Your task to perform on an android device: What's on my calendar tomorrow? Image 0: 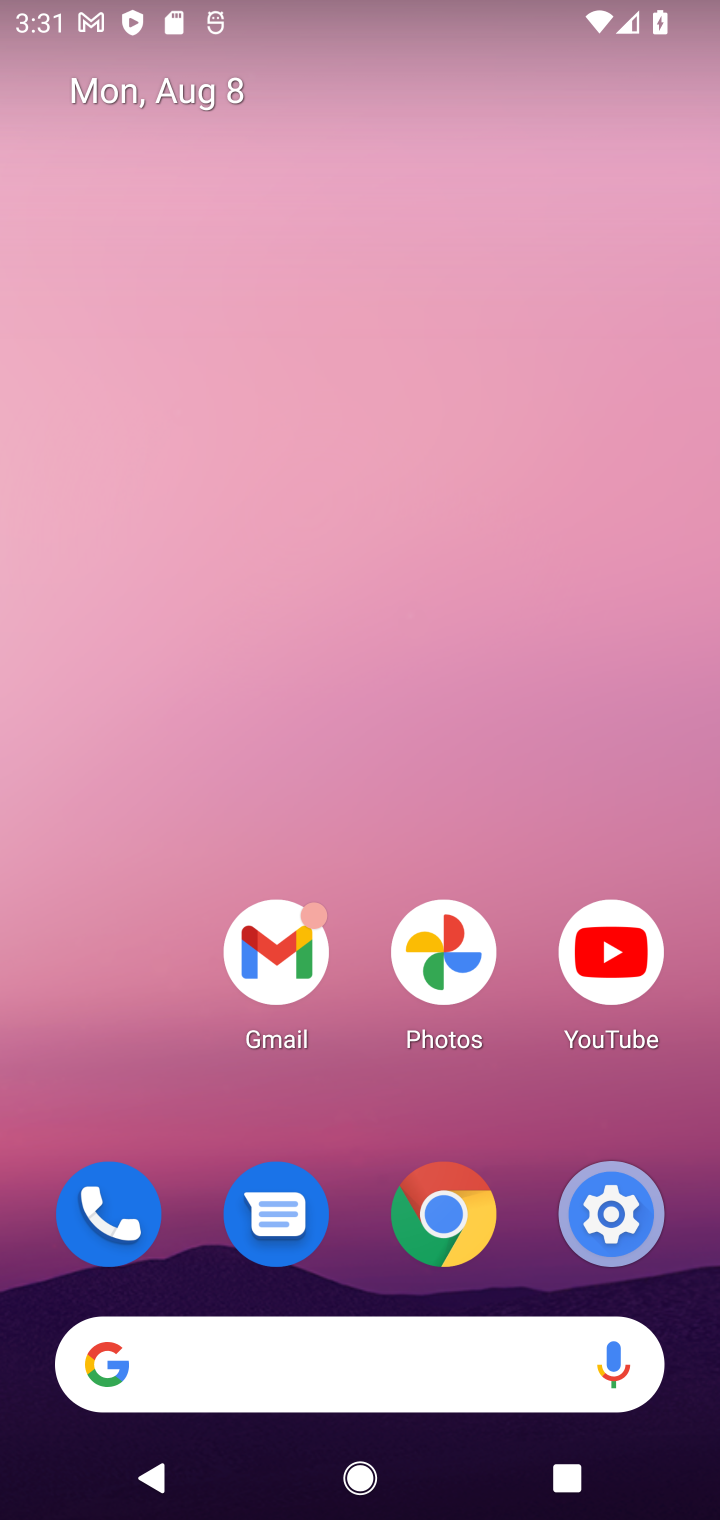
Step 0: press home button
Your task to perform on an android device: What's on my calendar tomorrow? Image 1: 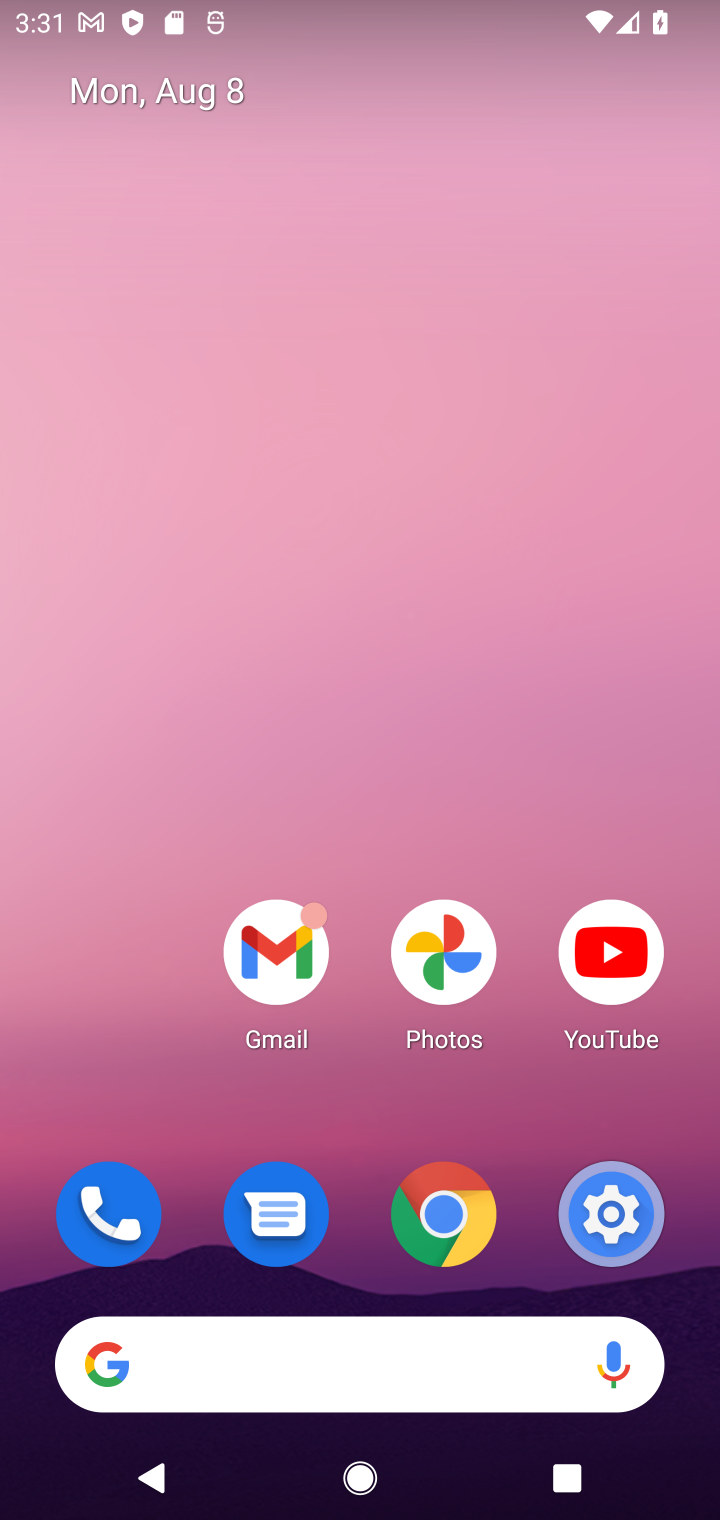
Step 1: click (317, 472)
Your task to perform on an android device: What's on my calendar tomorrow? Image 2: 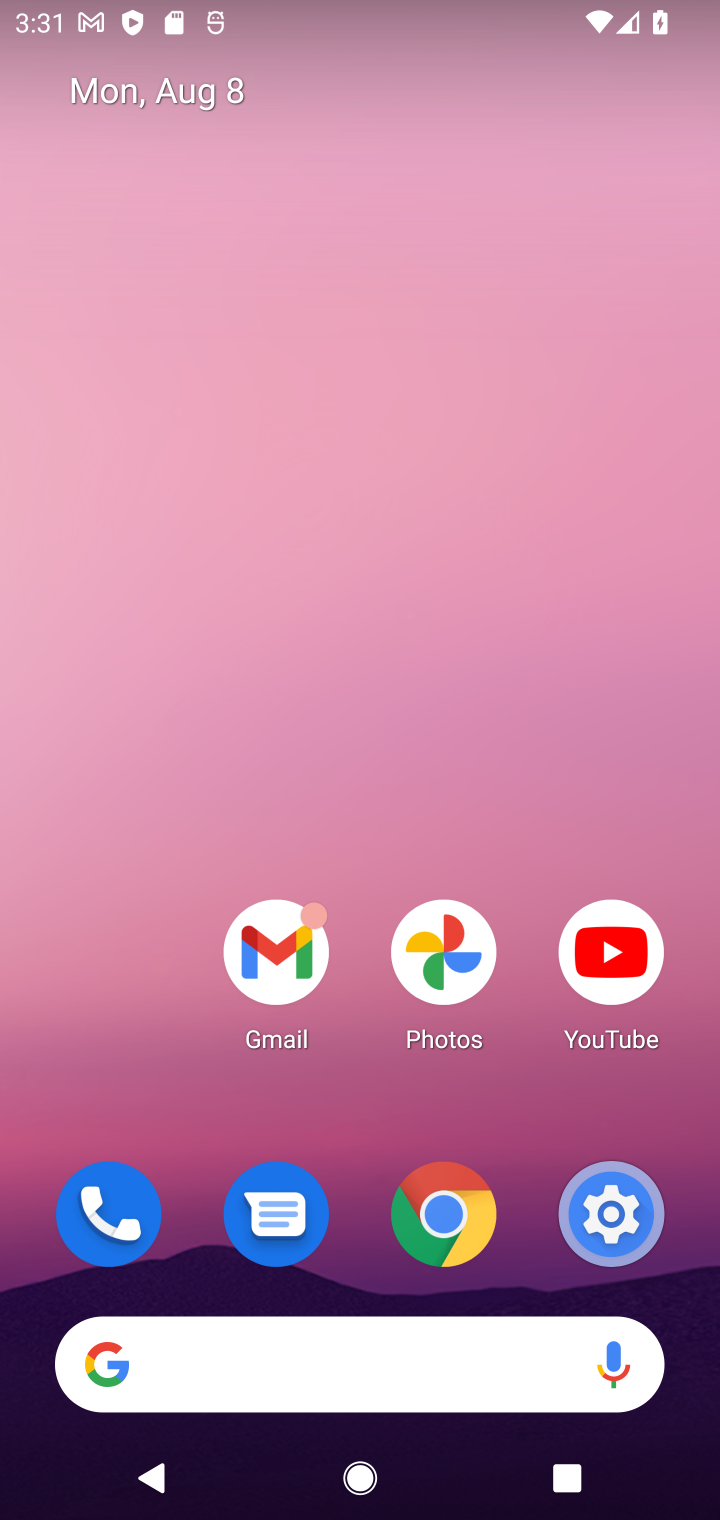
Step 2: drag from (367, 1165) to (356, 16)
Your task to perform on an android device: What's on my calendar tomorrow? Image 3: 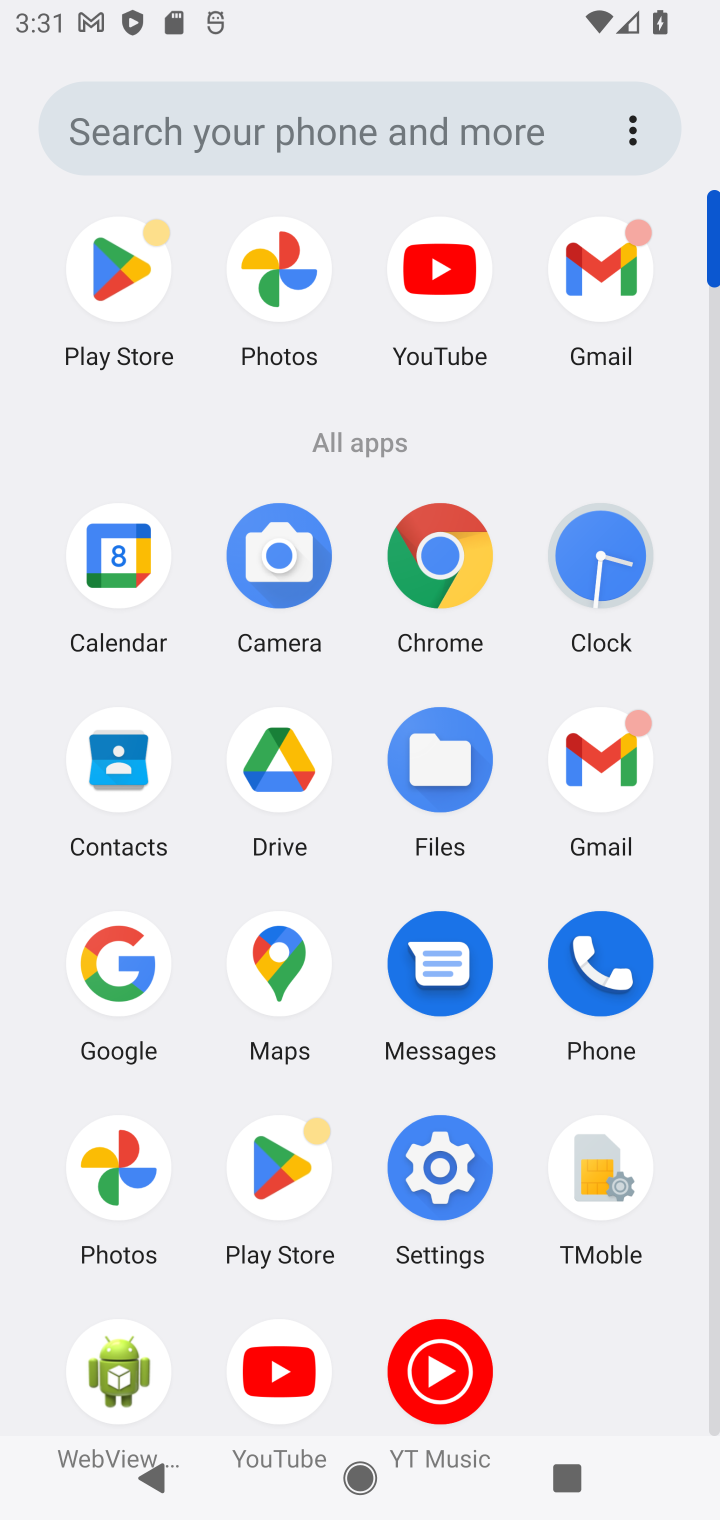
Step 3: click (114, 564)
Your task to perform on an android device: What's on my calendar tomorrow? Image 4: 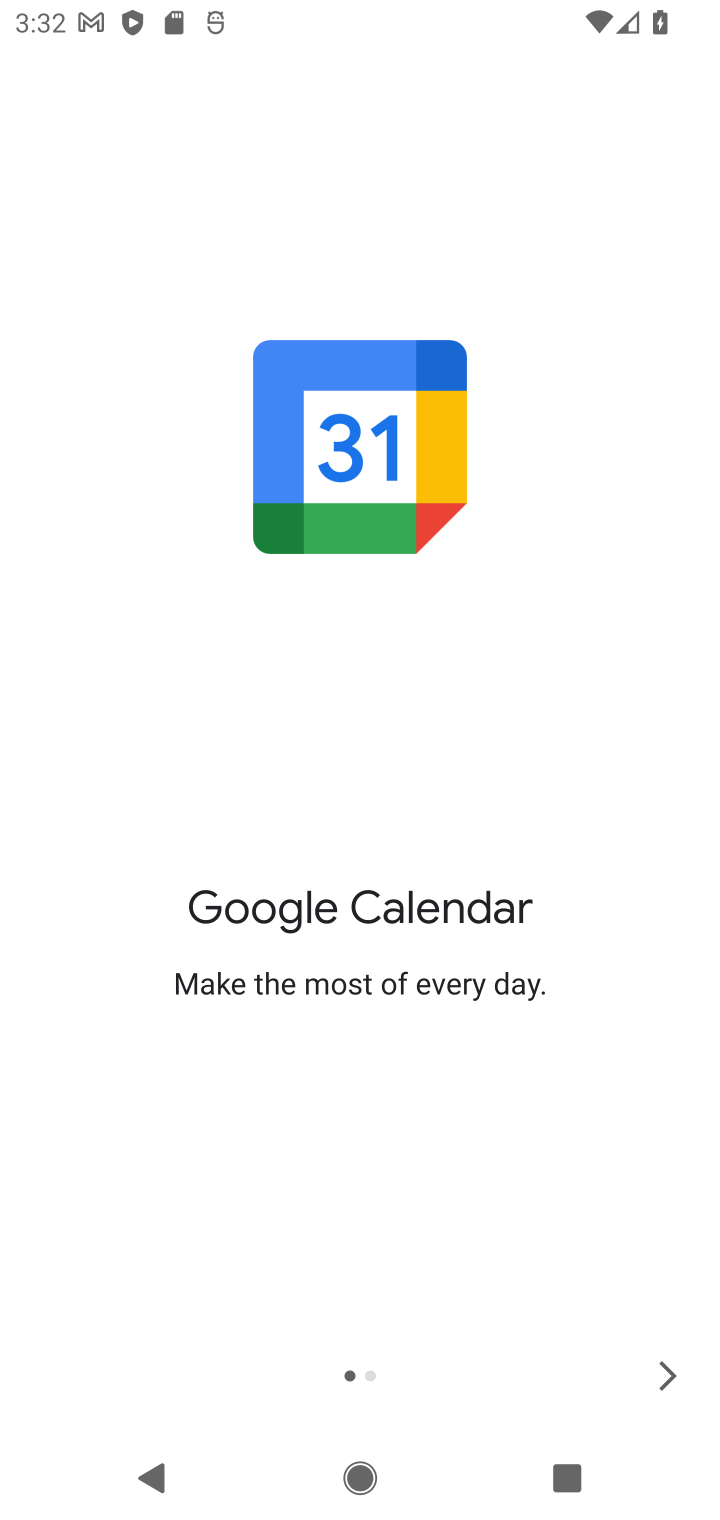
Step 4: click (671, 1358)
Your task to perform on an android device: What's on my calendar tomorrow? Image 5: 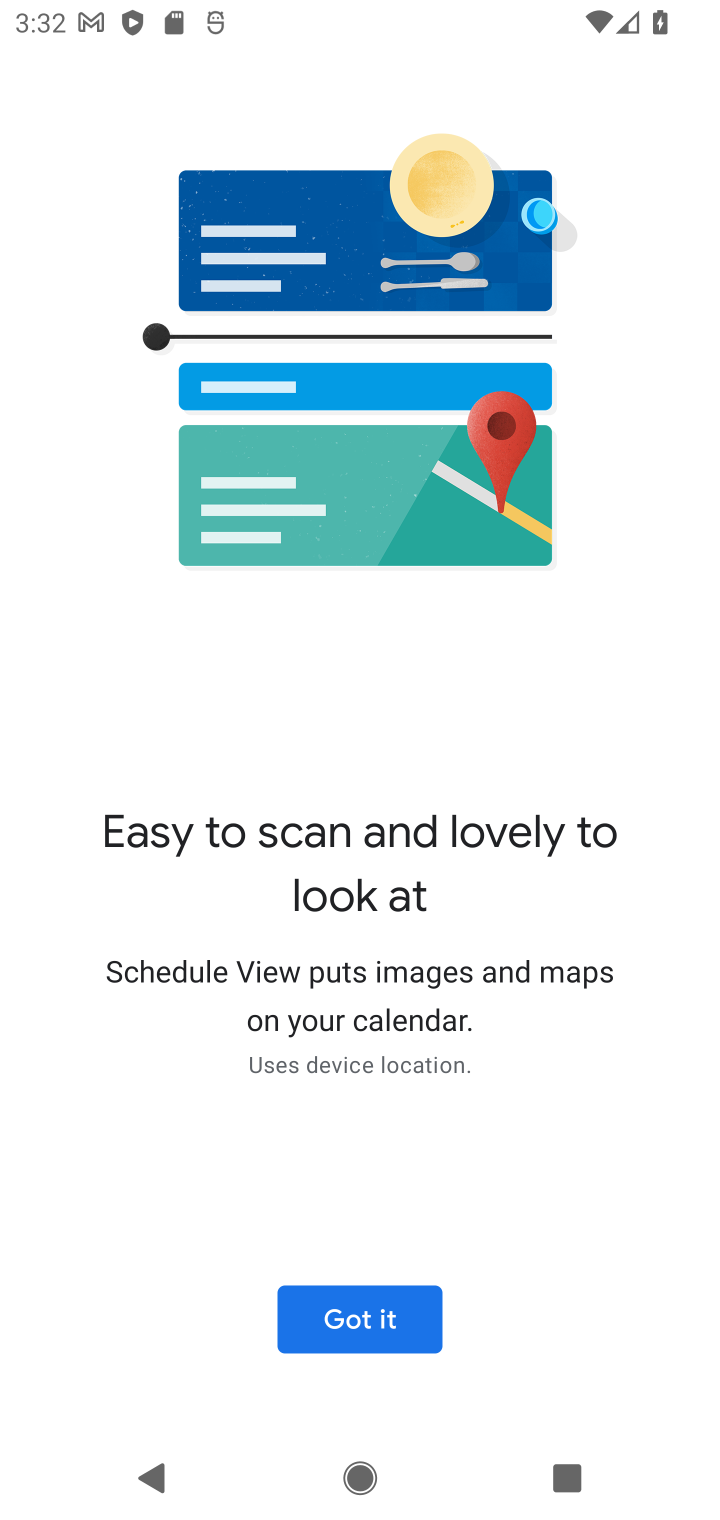
Step 5: click (379, 1315)
Your task to perform on an android device: What's on my calendar tomorrow? Image 6: 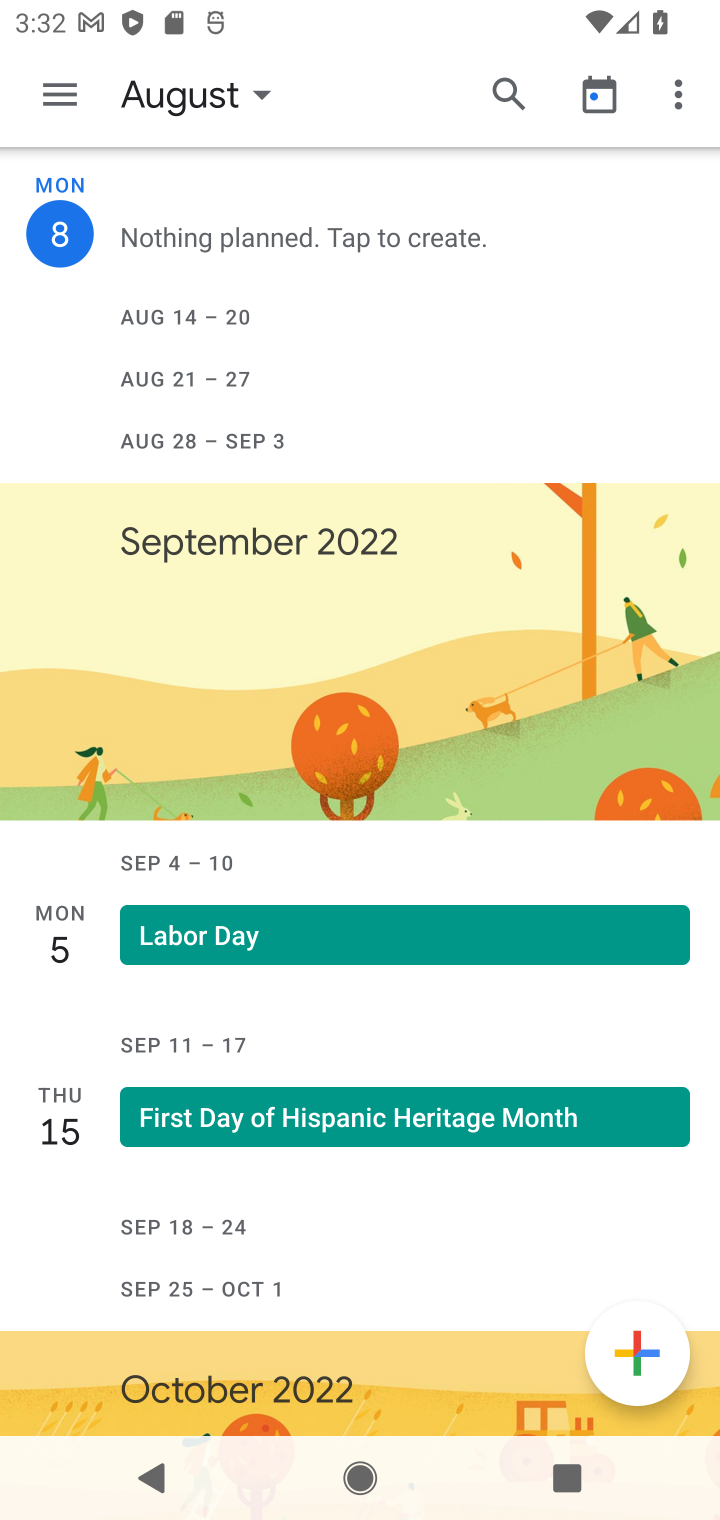
Step 6: click (232, 89)
Your task to perform on an android device: What's on my calendar tomorrow? Image 7: 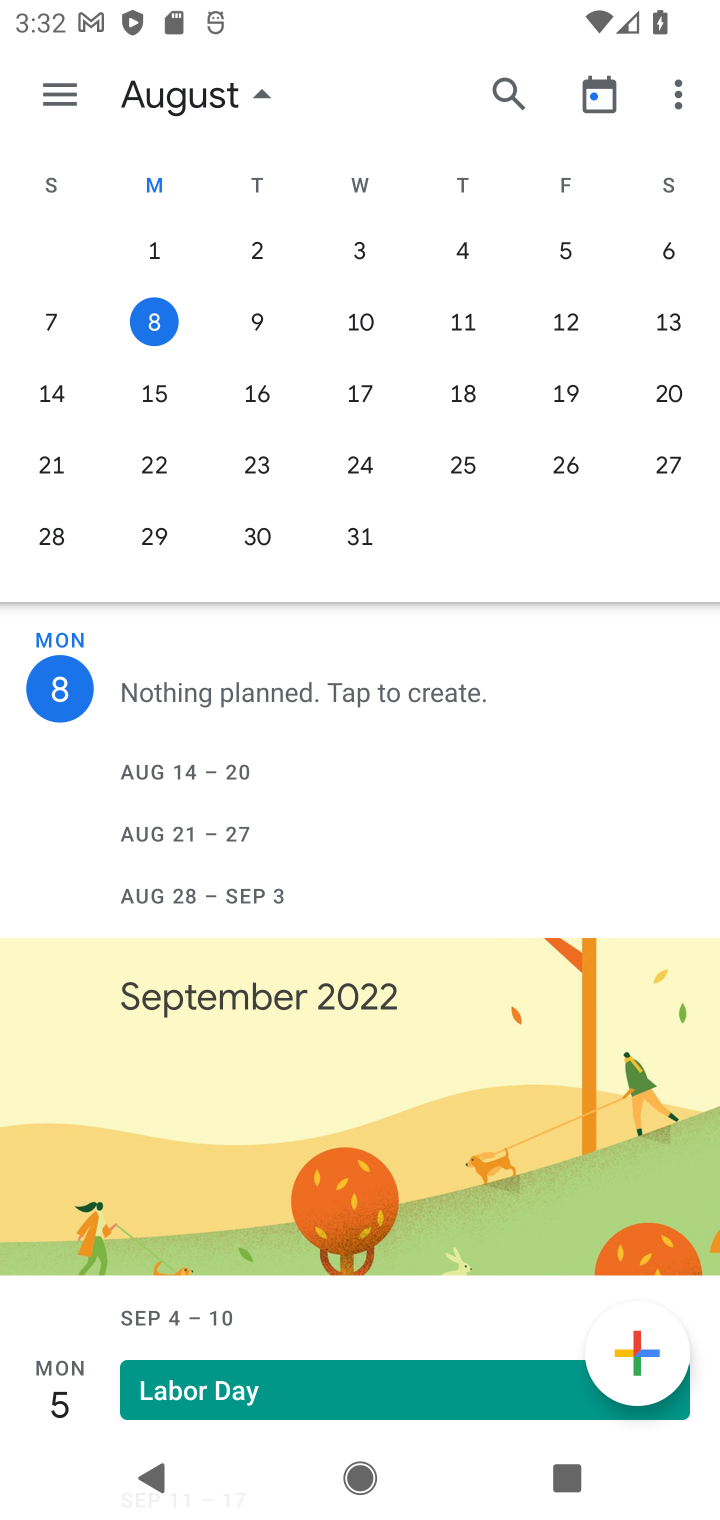
Step 7: click (159, 314)
Your task to perform on an android device: What's on my calendar tomorrow? Image 8: 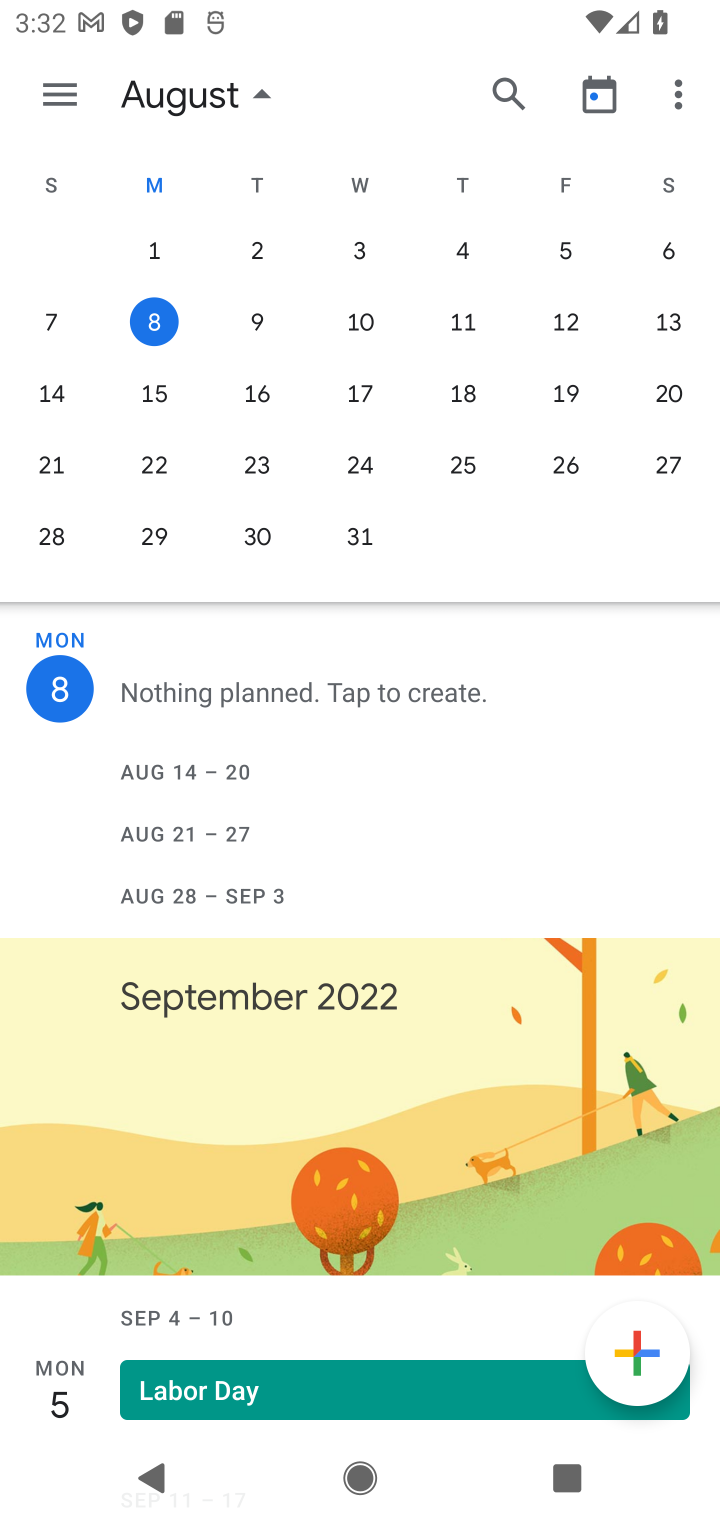
Step 8: click (64, 696)
Your task to perform on an android device: What's on my calendar tomorrow? Image 9: 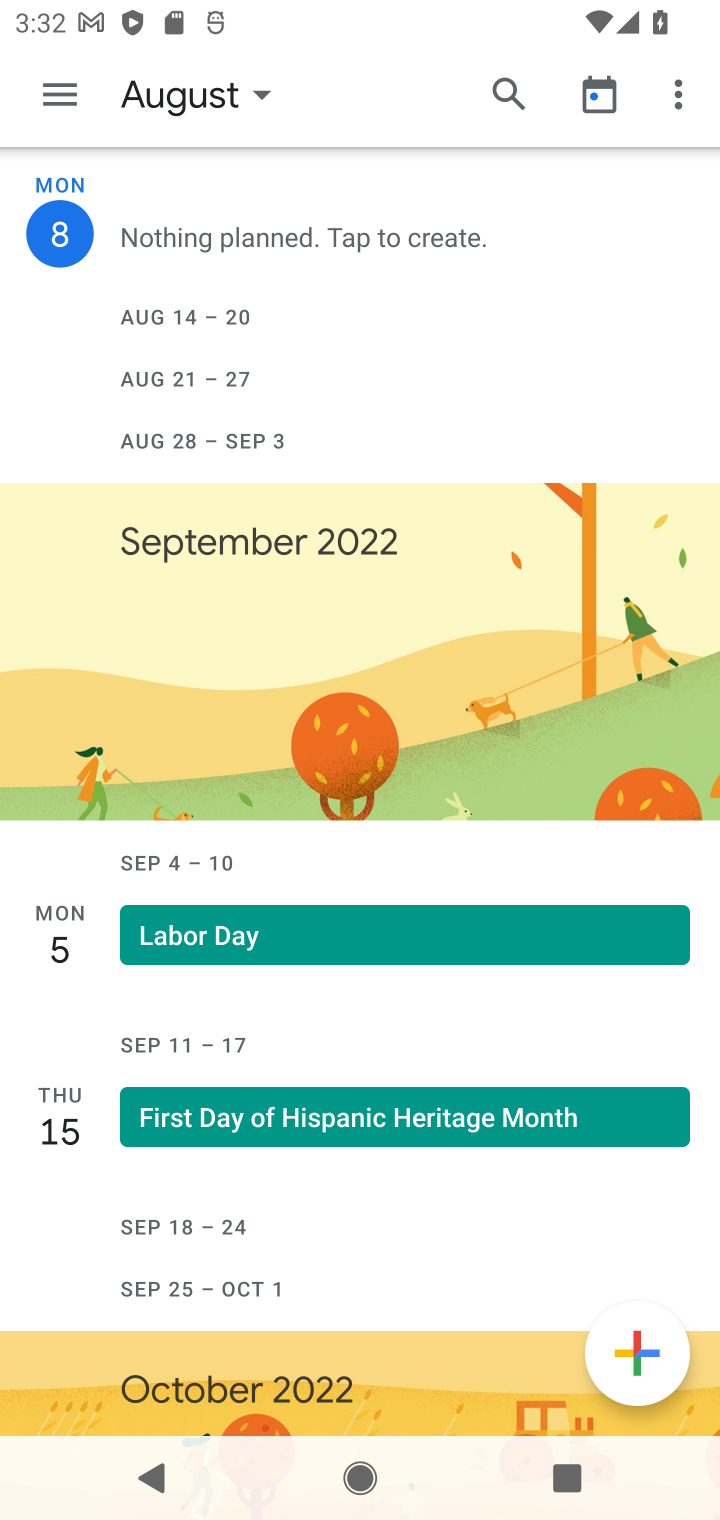
Step 9: task complete